Your task to perform on an android device: Go to Maps Image 0: 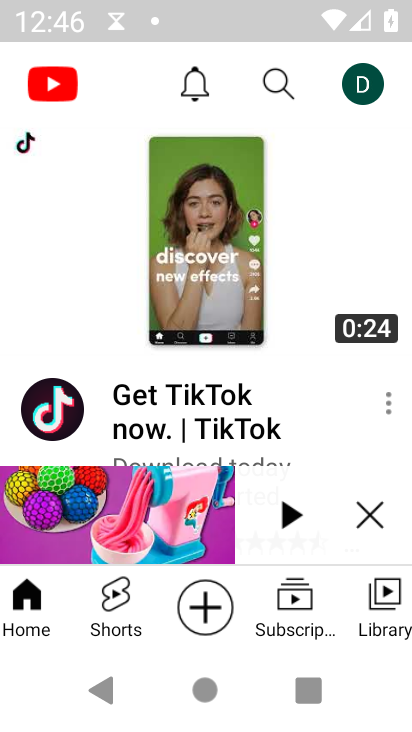
Step 0: press back button
Your task to perform on an android device: Go to Maps Image 1: 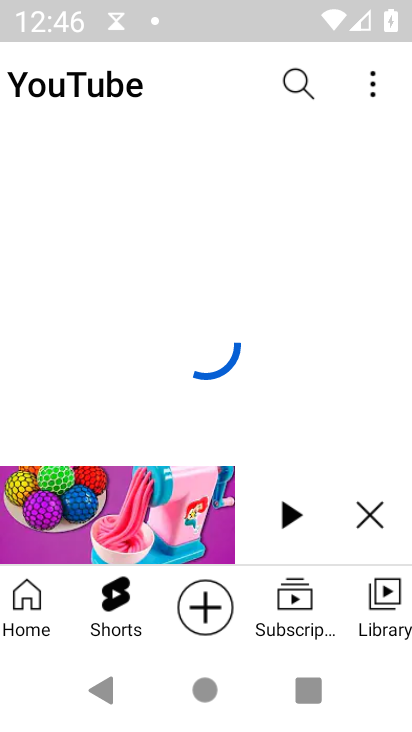
Step 1: press back button
Your task to perform on an android device: Go to Maps Image 2: 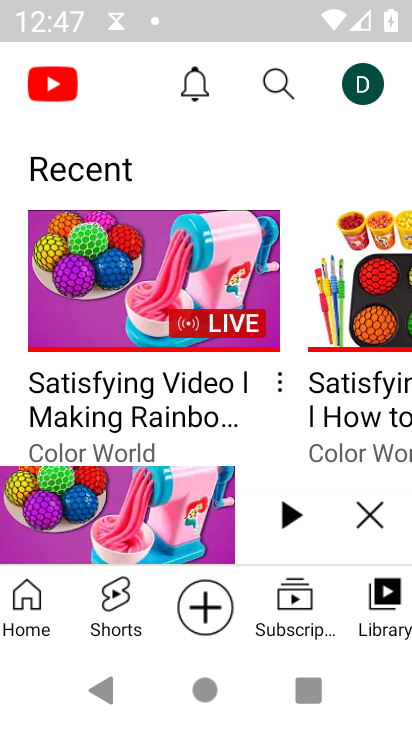
Step 2: press home button
Your task to perform on an android device: Go to Maps Image 3: 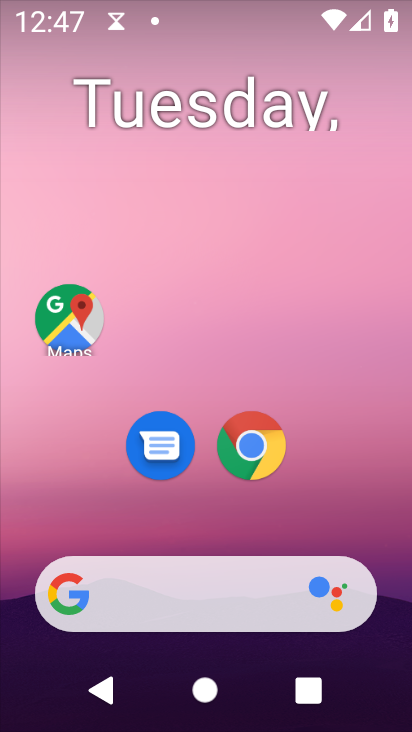
Step 3: drag from (278, 571) to (265, 14)
Your task to perform on an android device: Go to Maps Image 4: 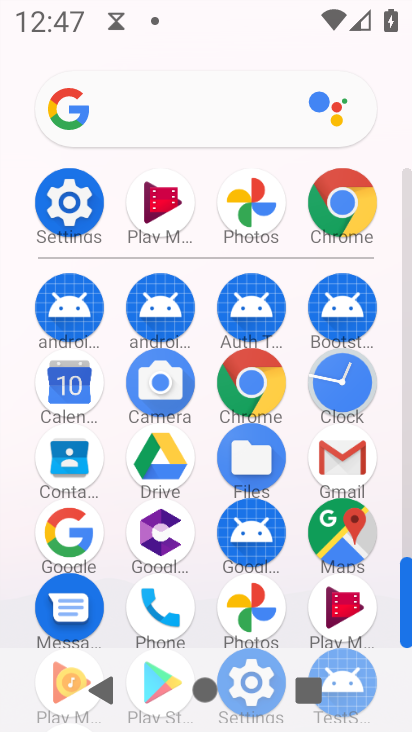
Step 4: click (328, 525)
Your task to perform on an android device: Go to Maps Image 5: 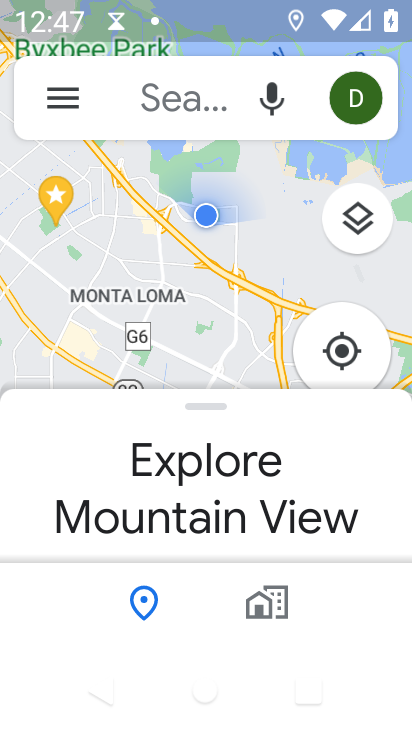
Step 5: press back button
Your task to perform on an android device: Go to Maps Image 6: 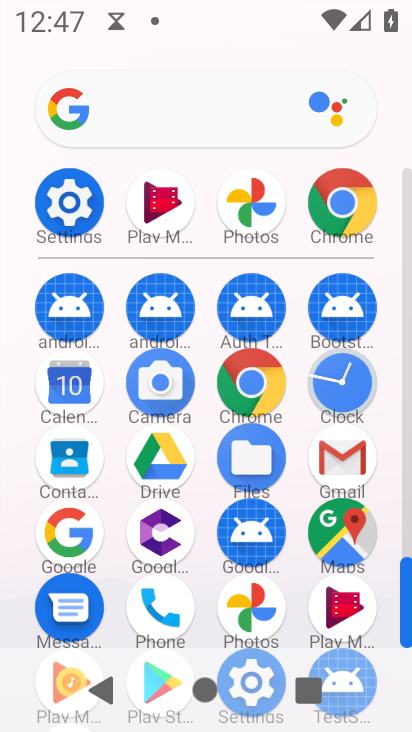
Step 6: click (354, 533)
Your task to perform on an android device: Go to Maps Image 7: 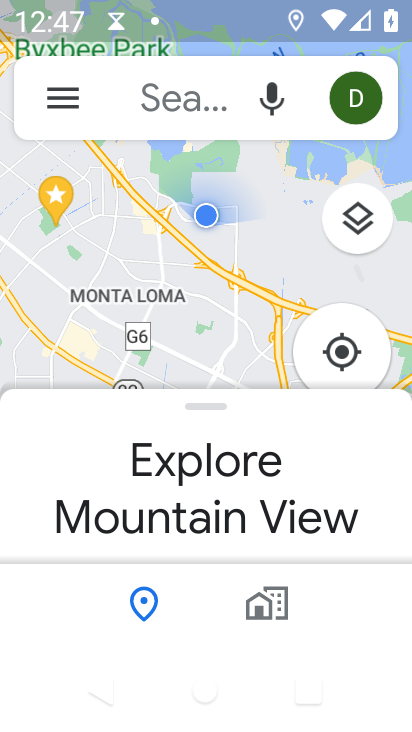
Step 7: task complete